Your task to perform on an android device: toggle pop-ups in chrome Image 0: 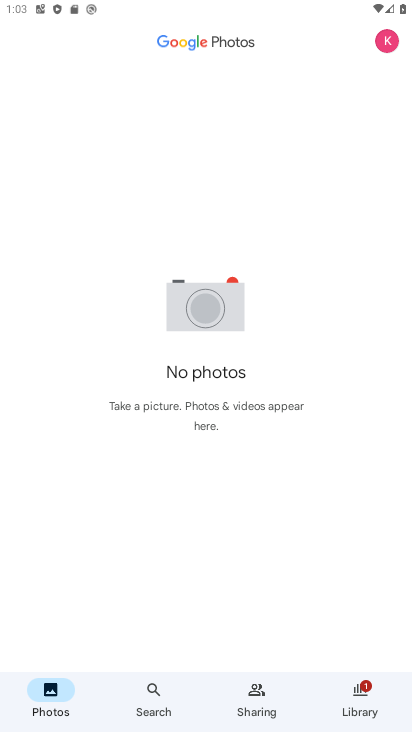
Step 0: press home button
Your task to perform on an android device: toggle pop-ups in chrome Image 1: 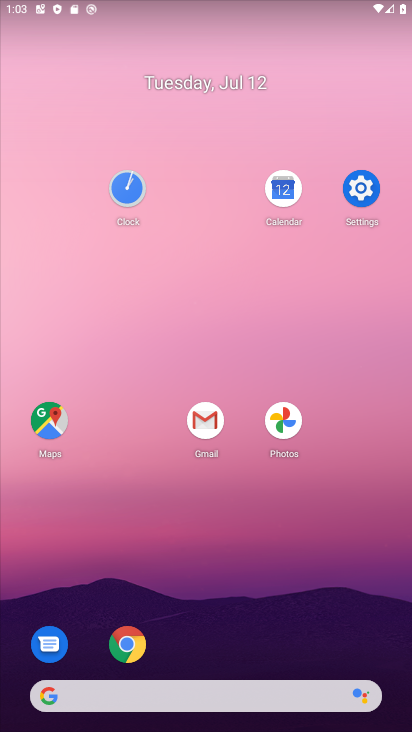
Step 1: click (121, 649)
Your task to perform on an android device: toggle pop-ups in chrome Image 2: 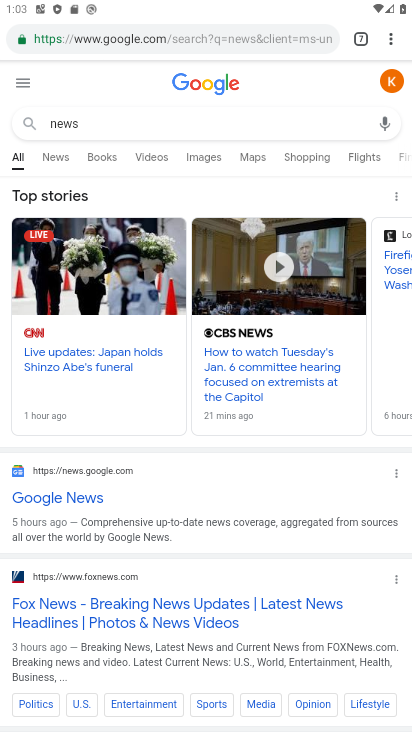
Step 2: click (390, 42)
Your task to perform on an android device: toggle pop-ups in chrome Image 3: 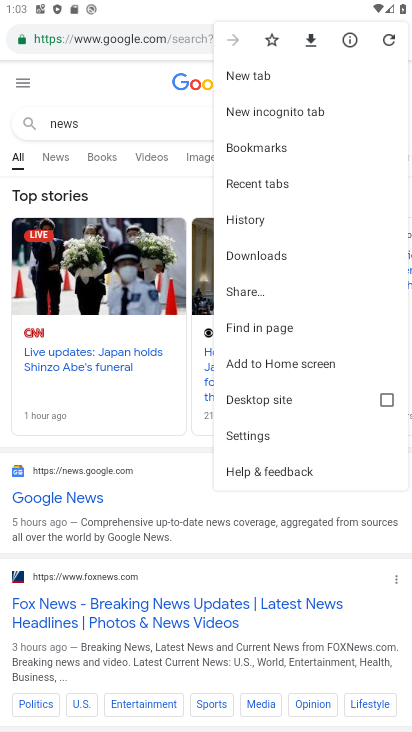
Step 3: click (260, 433)
Your task to perform on an android device: toggle pop-ups in chrome Image 4: 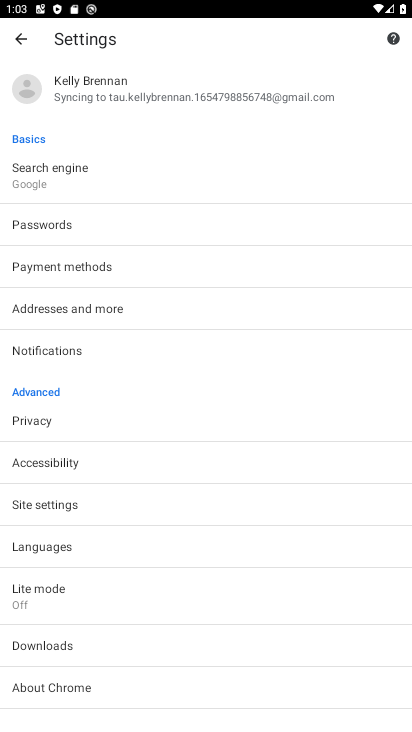
Step 4: click (137, 507)
Your task to perform on an android device: toggle pop-ups in chrome Image 5: 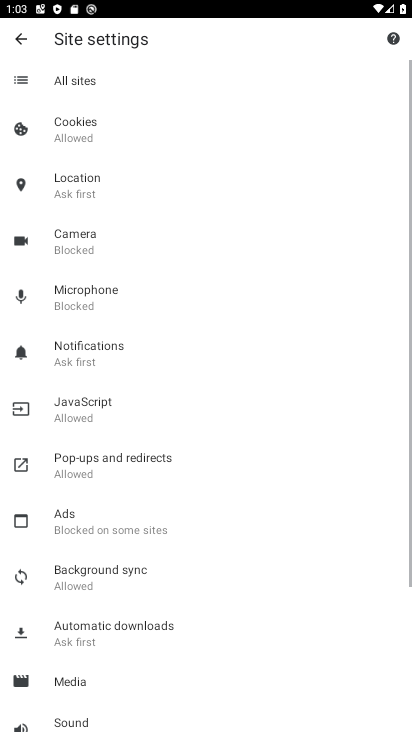
Step 5: click (123, 488)
Your task to perform on an android device: toggle pop-ups in chrome Image 6: 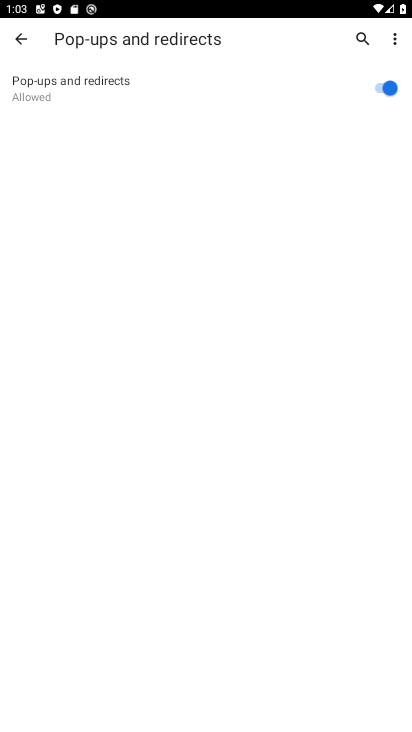
Step 6: task complete